Your task to perform on an android device: set an alarm Image 0: 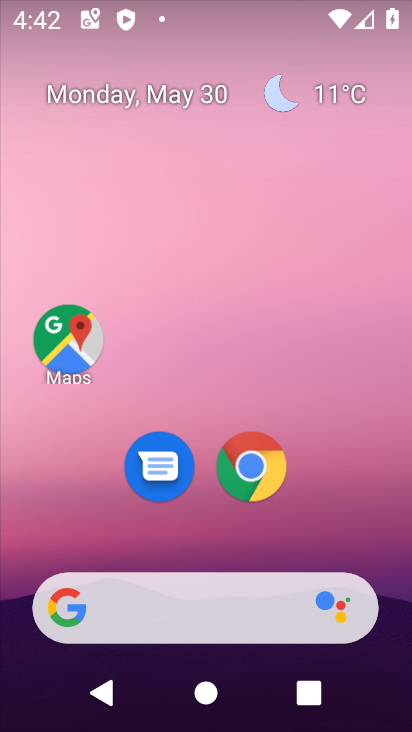
Step 0: drag from (343, 471) to (244, 25)
Your task to perform on an android device: set an alarm Image 1: 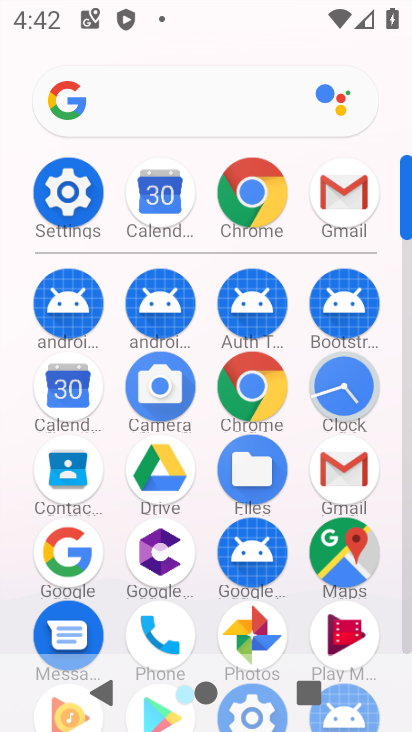
Step 1: click (350, 394)
Your task to perform on an android device: set an alarm Image 2: 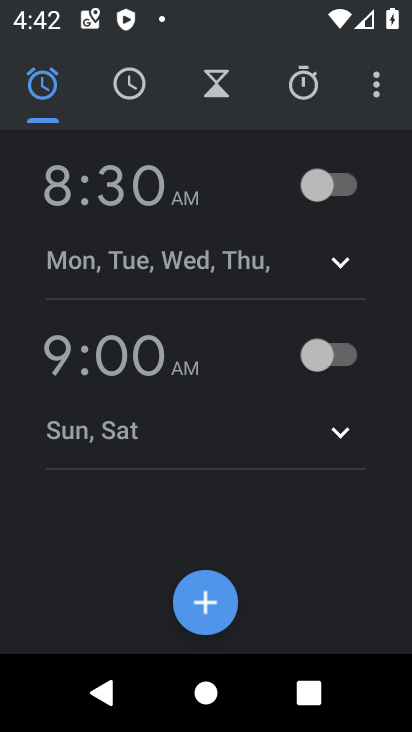
Step 2: click (223, 592)
Your task to perform on an android device: set an alarm Image 3: 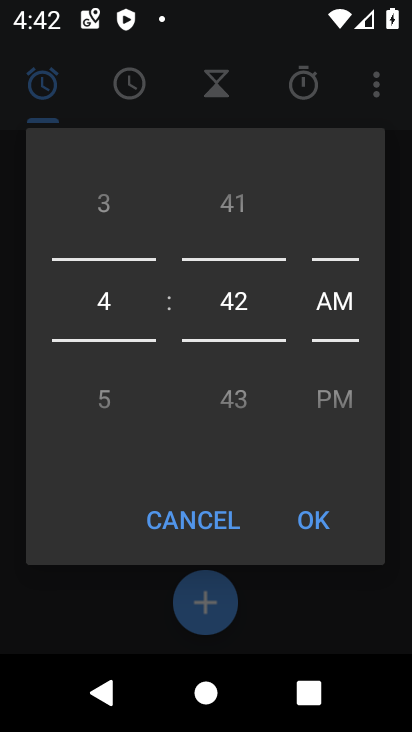
Step 3: click (320, 515)
Your task to perform on an android device: set an alarm Image 4: 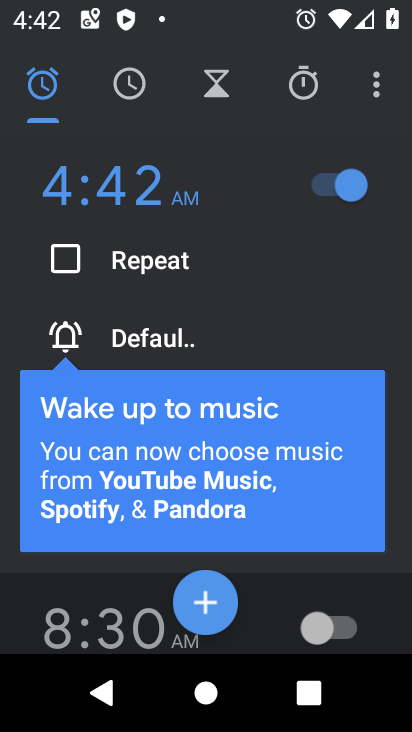
Step 4: task complete